Your task to perform on an android device: turn off priority inbox in the gmail app Image 0: 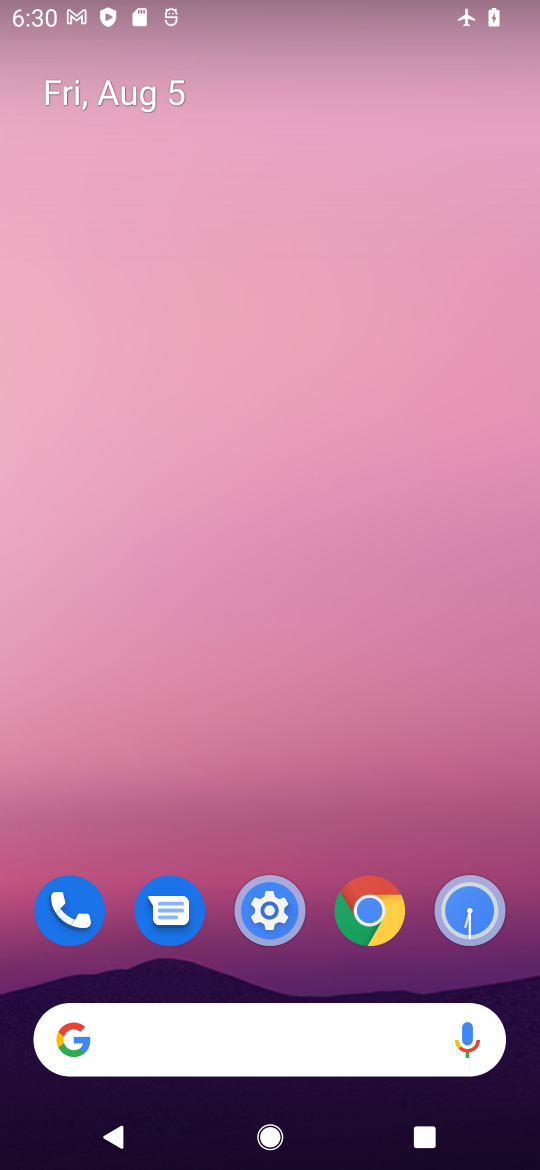
Step 0: drag from (433, 1019) to (381, 21)
Your task to perform on an android device: turn off priority inbox in the gmail app Image 1: 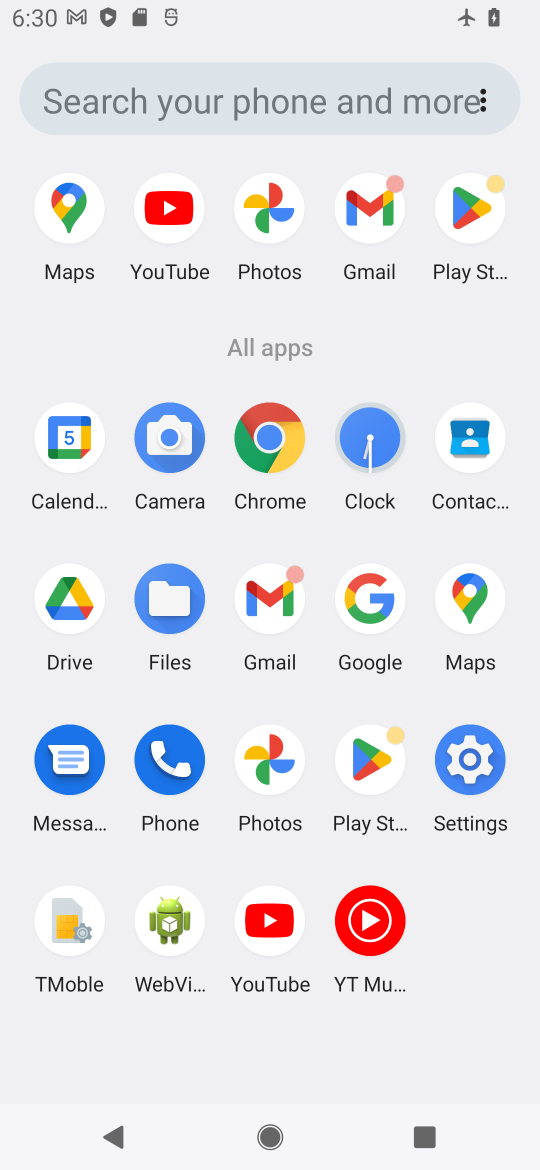
Step 1: click (284, 580)
Your task to perform on an android device: turn off priority inbox in the gmail app Image 2: 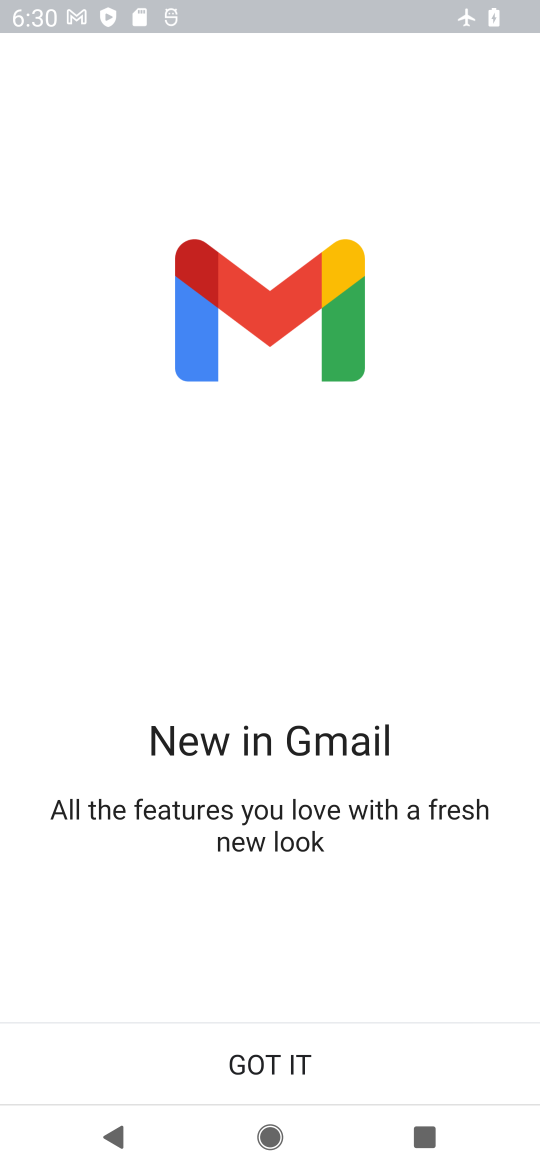
Step 2: click (347, 1067)
Your task to perform on an android device: turn off priority inbox in the gmail app Image 3: 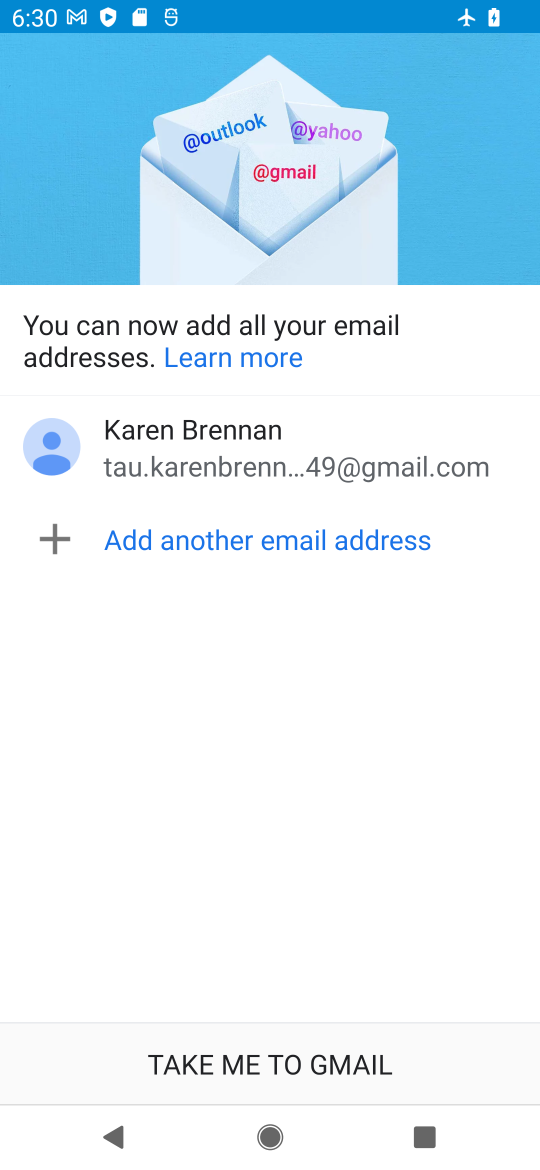
Step 3: click (347, 1067)
Your task to perform on an android device: turn off priority inbox in the gmail app Image 4: 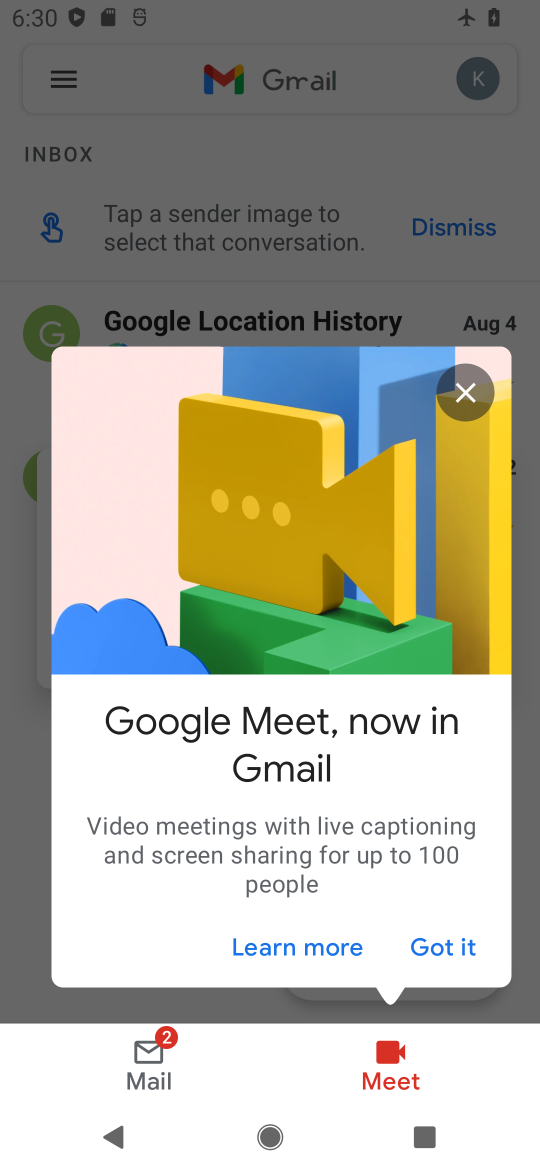
Step 4: click (449, 945)
Your task to perform on an android device: turn off priority inbox in the gmail app Image 5: 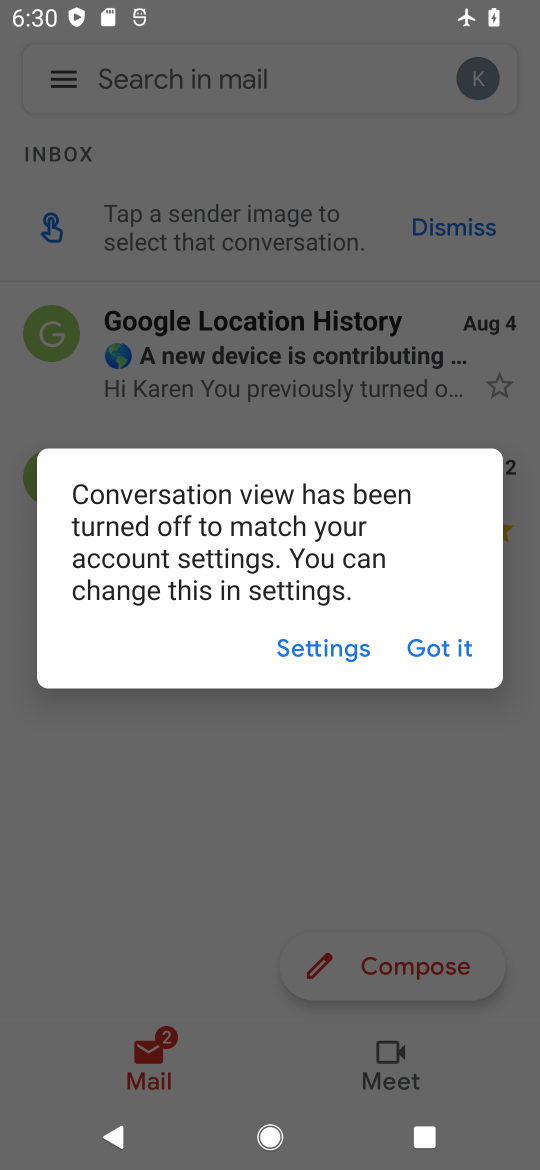
Step 5: click (435, 641)
Your task to perform on an android device: turn off priority inbox in the gmail app Image 6: 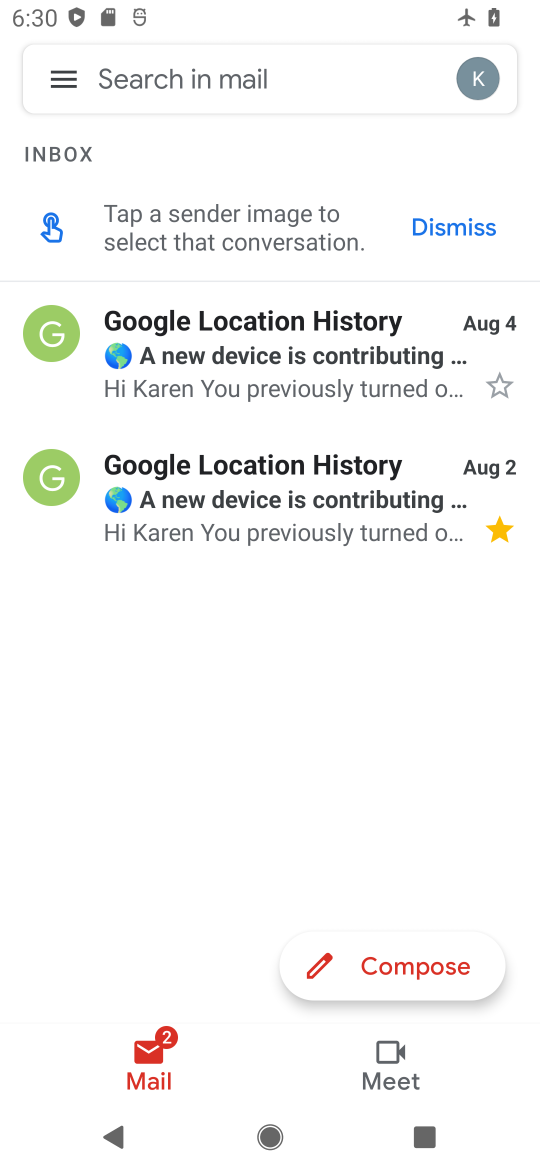
Step 6: click (55, 67)
Your task to perform on an android device: turn off priority inbox in the gmail app Image 7: 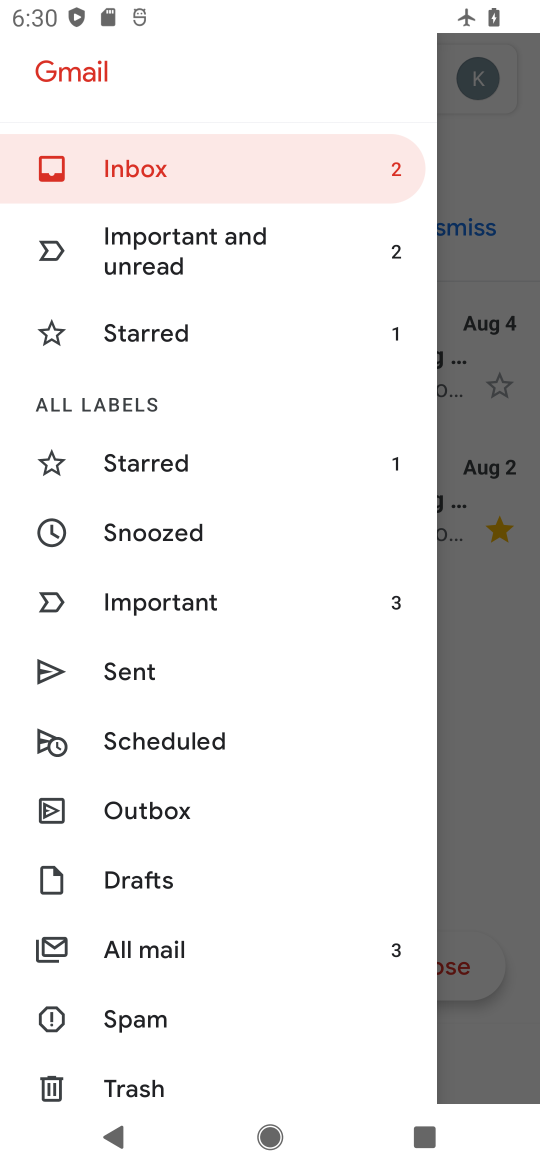
Step 7: drag from (302, 918) to (279, 306)
Your task to perform on an android device: turn off priority inbox in the gmail app Image 8: 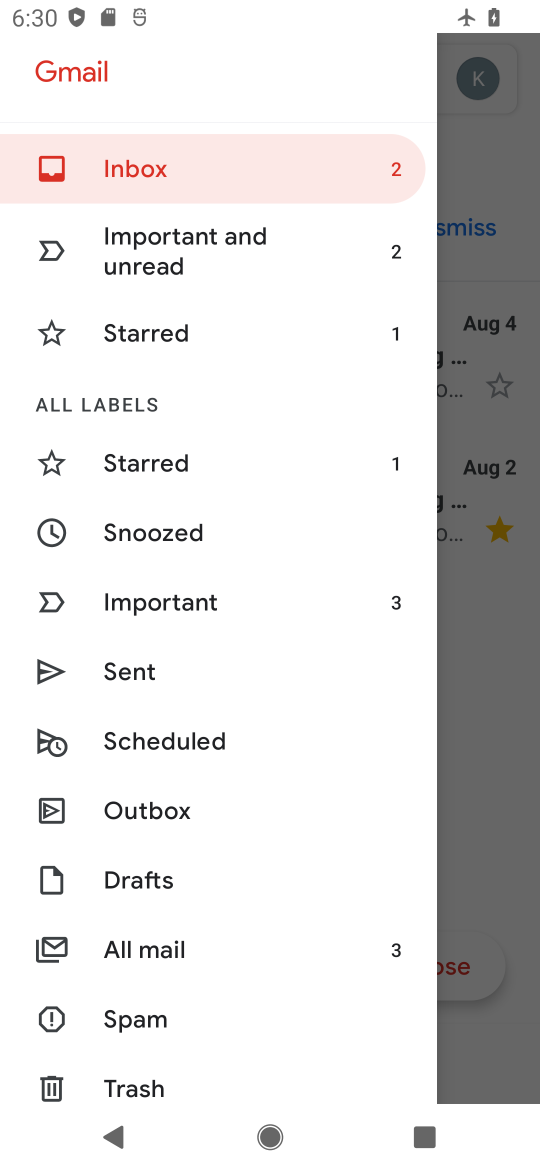
Step 8: drag from (324, 946) to (238, 18)
Your task to perform on an android device: turn off priority inbox in the gmail app Image 9: 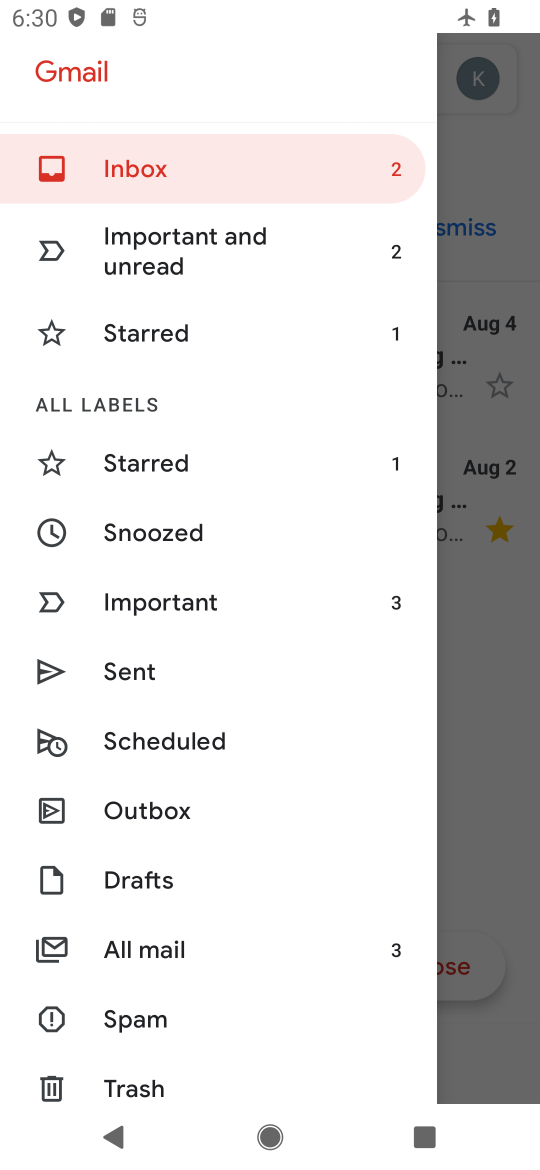
Step 9: drag from (207, 1021) to (371, 57)
Your task to perform on an android device: turn off priority inbox in the gmail app Image 10: 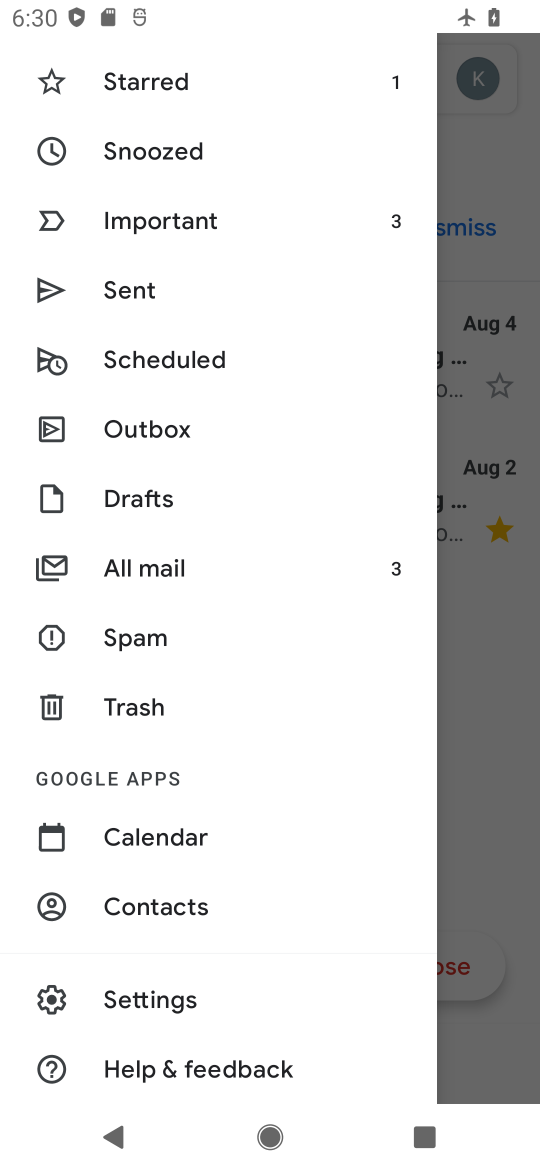
Step 10: click (134, 992)
Your task to perform on an android device: turn off priority inbox in the gmail app Image 11: 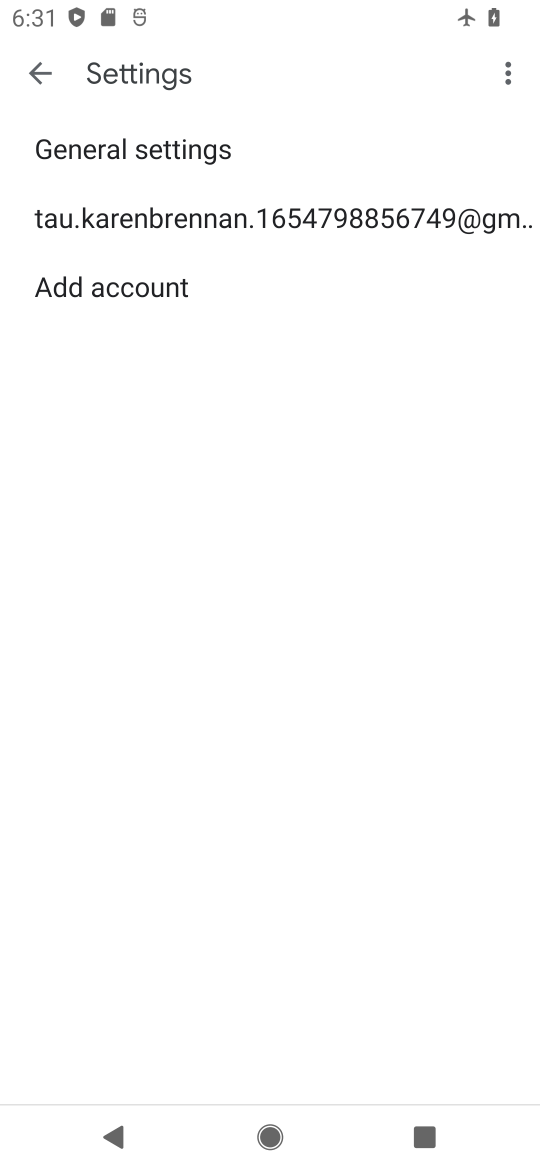
Step 11: click (138, 204)
Your task to perform on an android device: turn off priority inbox in the gmail app Image 12: 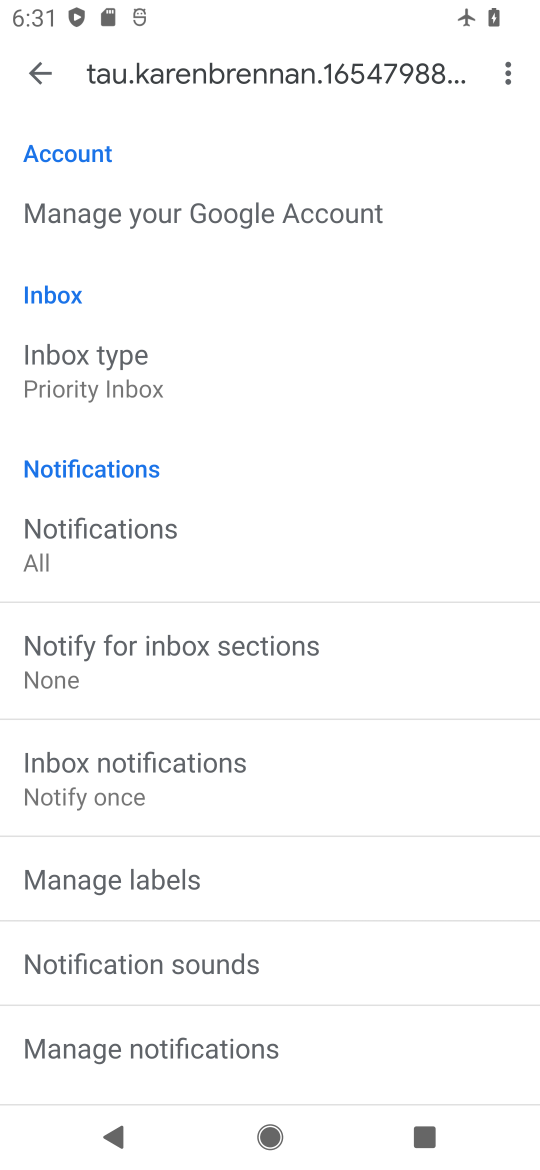
Step 12: click (106, 365)
Your task to perform on an android device: turn off priority inbox in the gmail app Image 13: 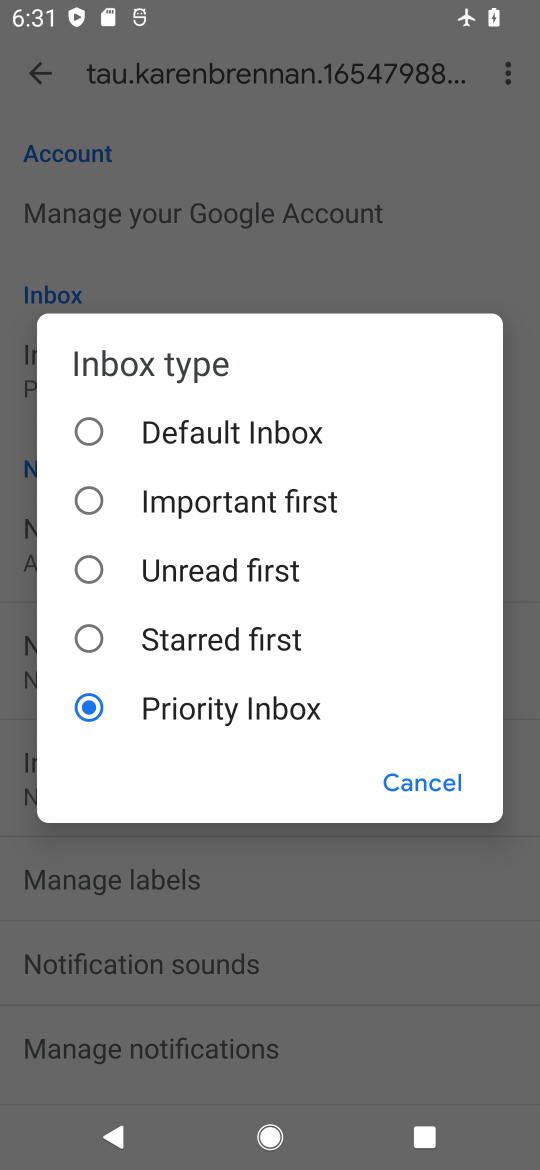
Step 13: click (82, 427)
Your task to perform on an android device: turn off priority inbox in the gmail app Image 14: 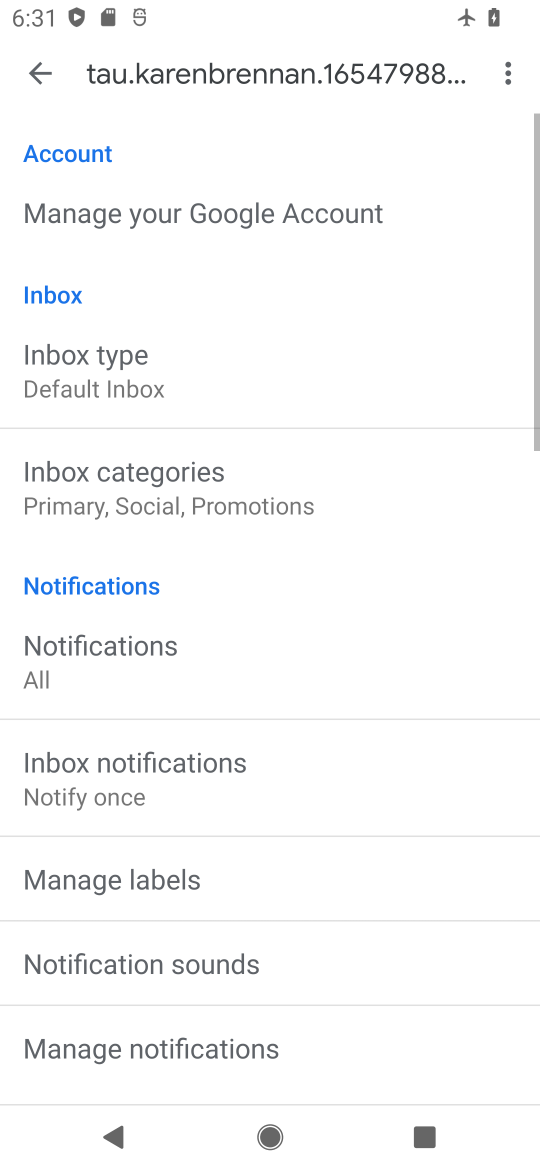
Step 14: task complete